Your task to perform on an android device: uninstall "File Manager" Image 0: 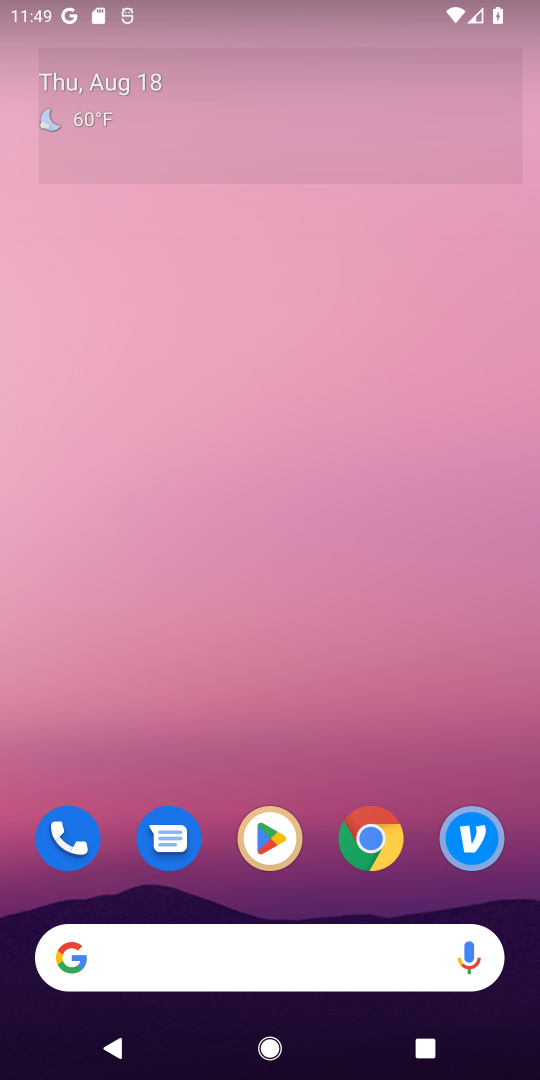
Step 0: click (268, 827)
Your task to perform on an android device: uninstall "File Manager" Image 1: 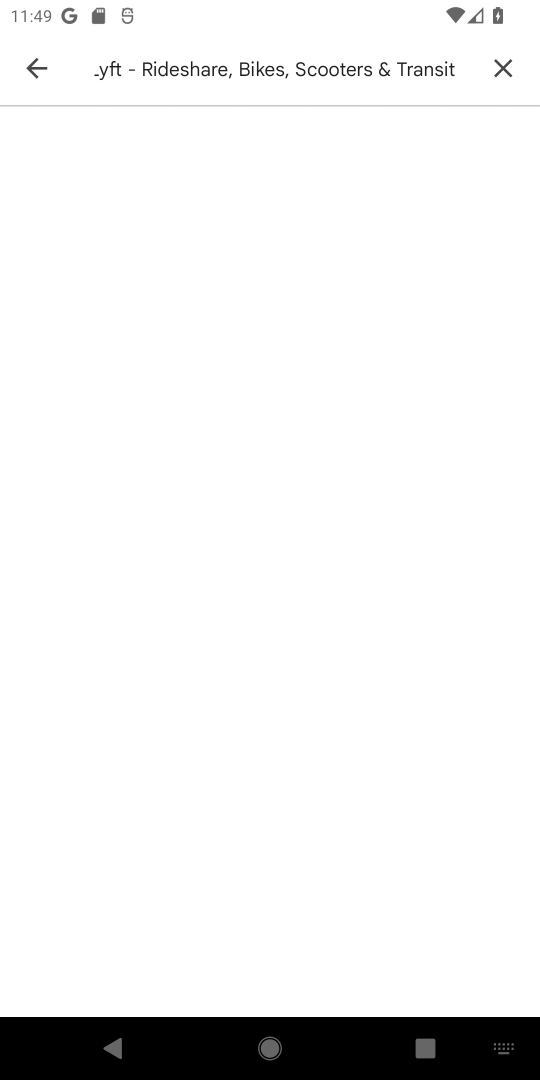
Step 1: click (491, 62)
Your task to perform on an android device: uninstall "File Manager" Image 2: 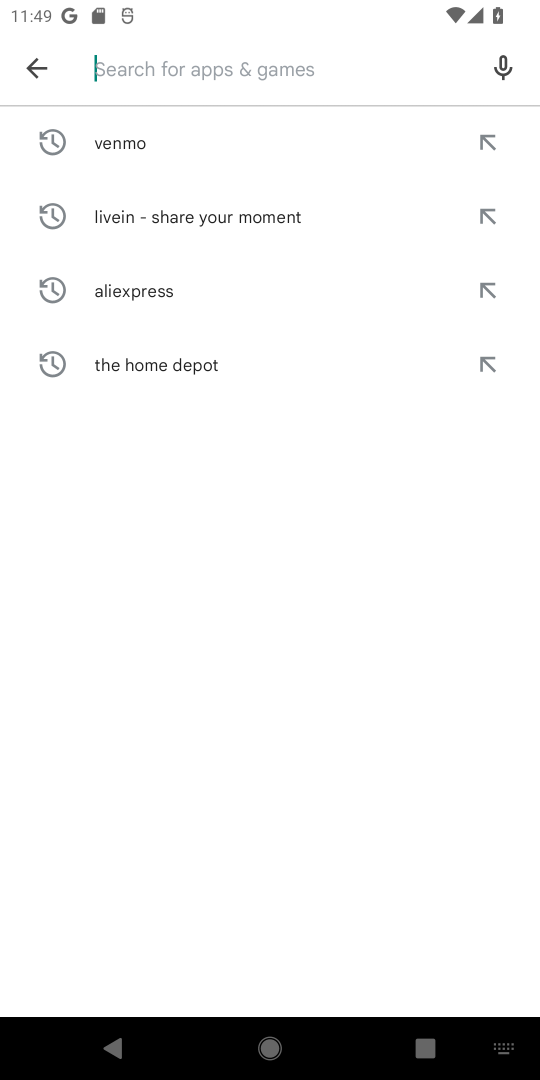
Step 2: type "File Manager"
Your task to perform on an android device: uninstall "File Manager" Image 3: 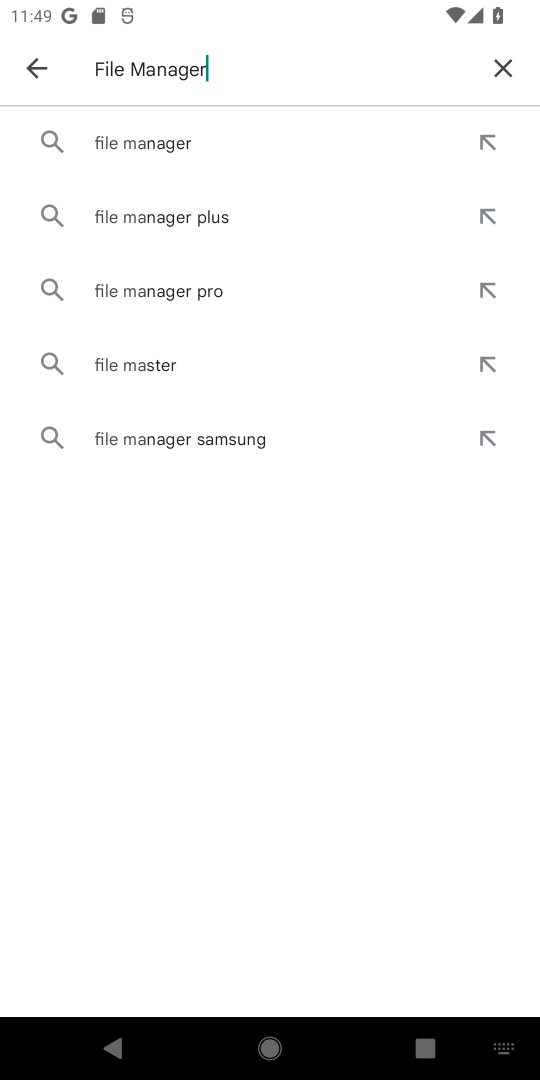
Step 3: type ""
Your task to perform on an android device: uninstall "File Manager" Image 4: 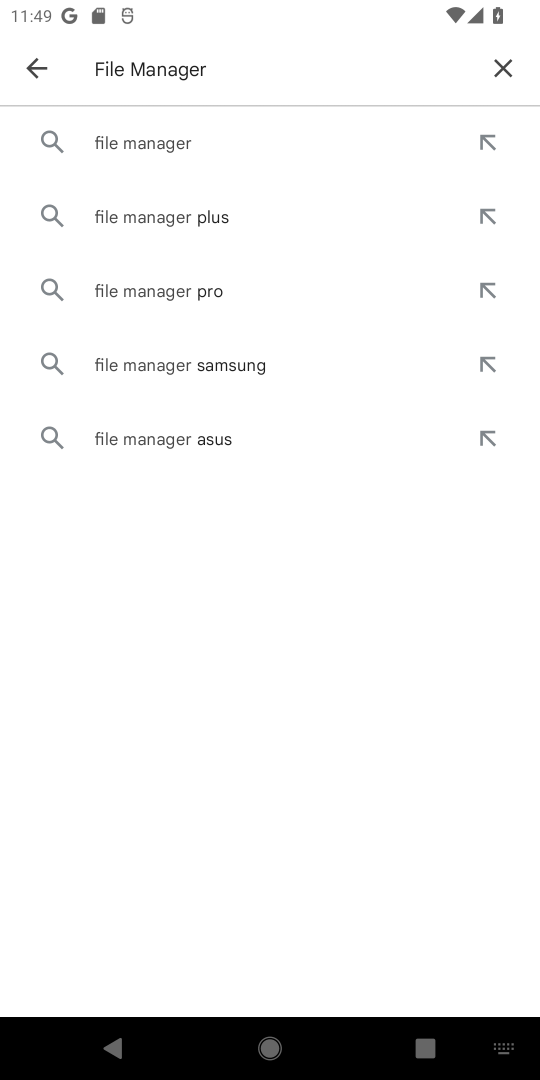
Step 4: click (138, 148)
Your task to perform on an android device: uninstall "File Manager" Image 5: 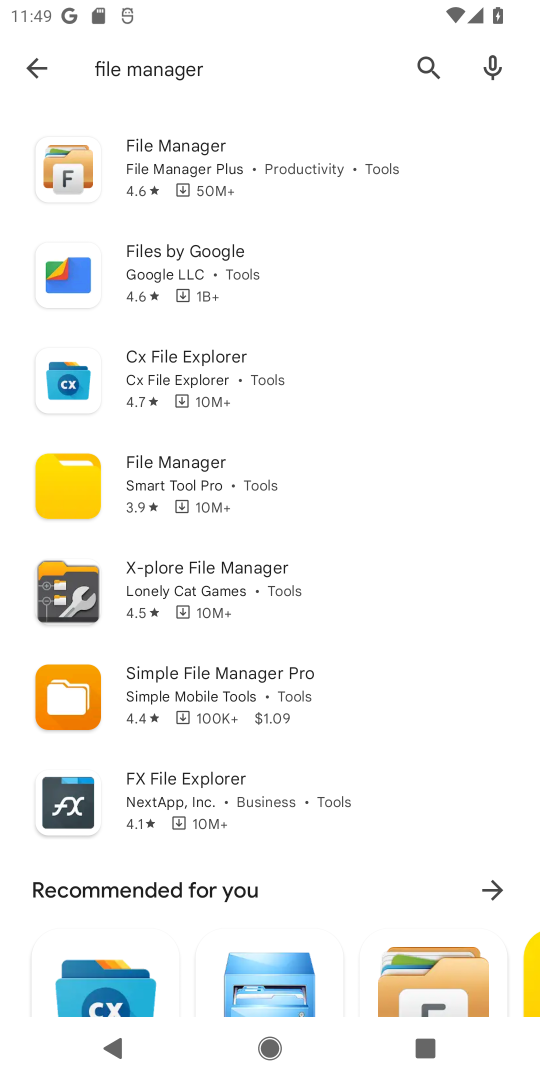
Step 5: click (178, 464)
Your task to perform on an android device: uninstall "File Manager" Image 6: 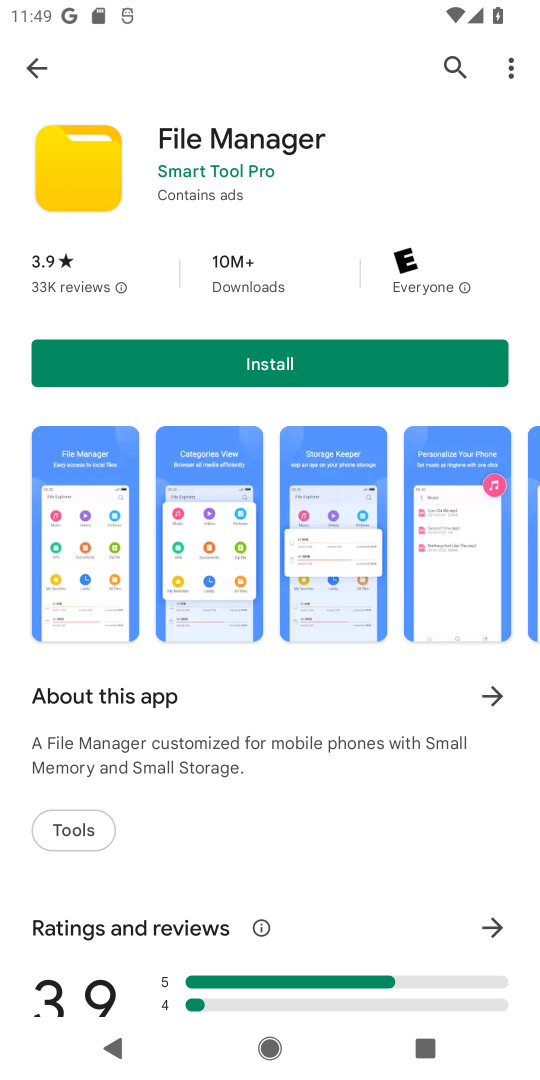
Step 6: task complete